Your task to perform on an android device: turn vacation reply on in the gmail app Image 0: 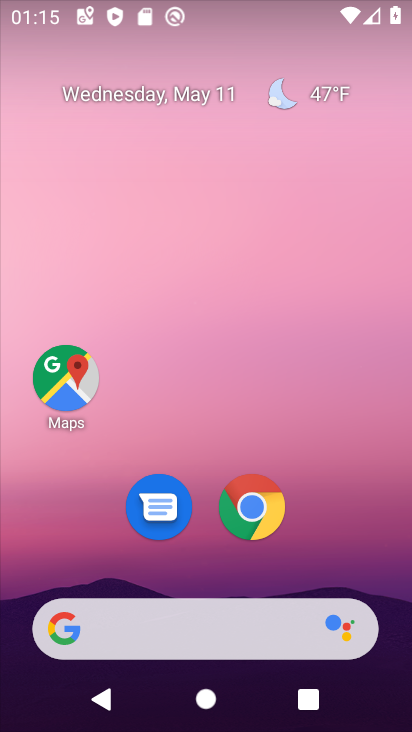
Step 0: drag from (352, 567) to (283, 104)
Your task to perform on an android device: turn vacation reply on in the gmail app Image 1: 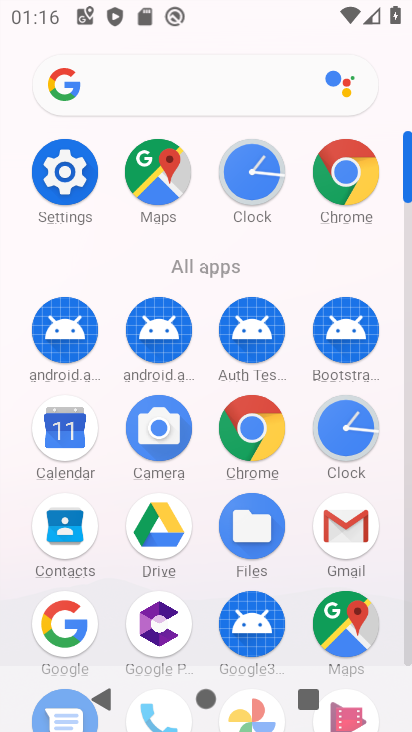
Step 1: click (344, 526)
Your task to perform on an android device: turn vacation reply on in the gmail app Image 2: 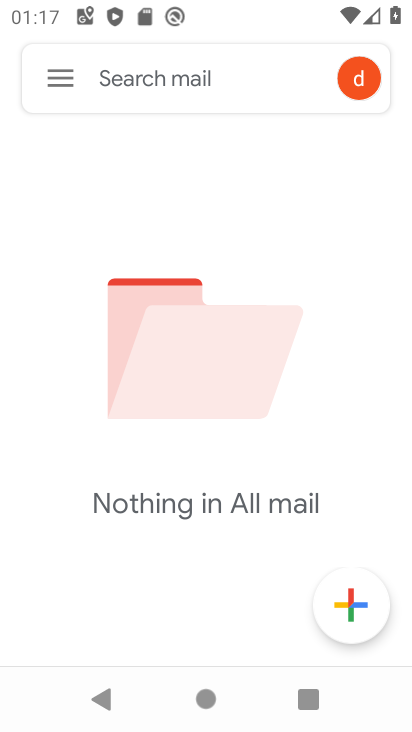
Step 2: click (58, 73)
Your task to perform on an android device: turn vacation reply on in the gmail app Image 3: 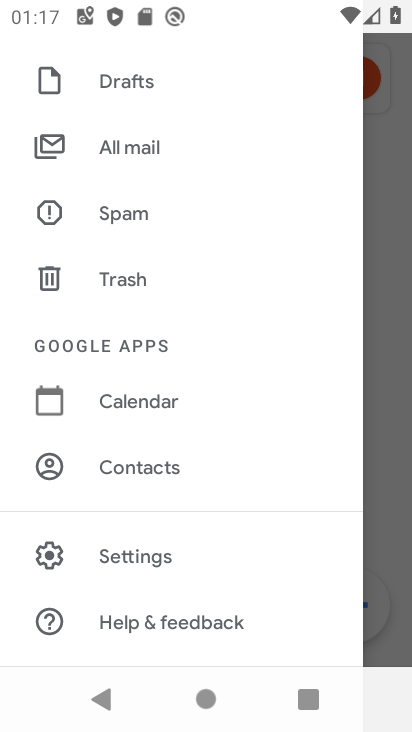
Step 3: click (136, 544)
Your task to perform on an android device: turn vacation reply on in the gmail app Image 4: 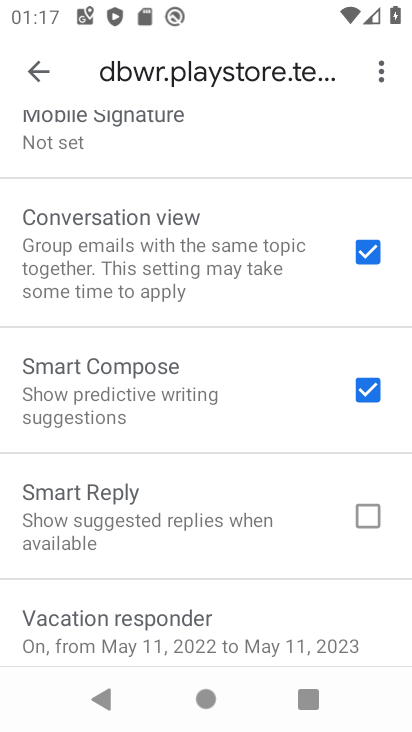
Step 4: drag from (159, 553) to (170, 256)
Your task to perform on an android device: turn vacation reply on in the gmail app Image 5: 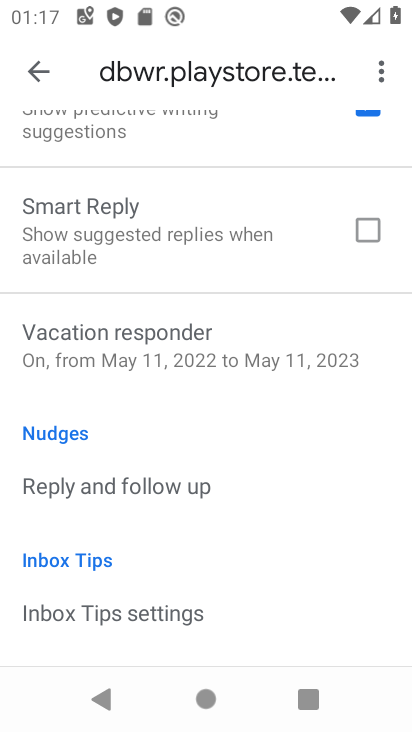
Step 5: click (156, 328)
Your task to perform on an android device: turn vacation reply on in the gmail app Image 6: 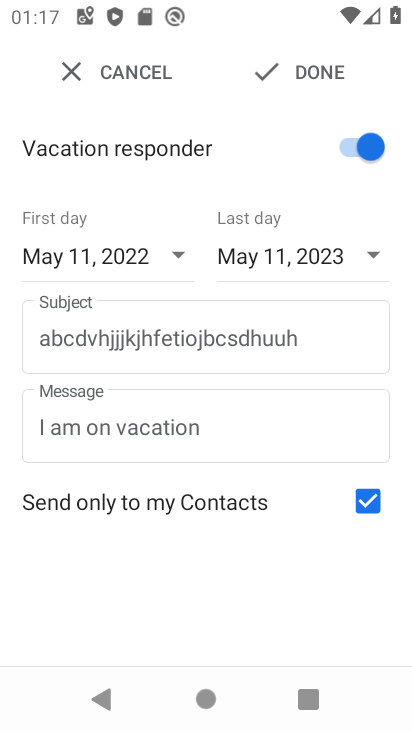
Step 6: task complete